Your task to perform on an android device: change keyboard looks Image 0: 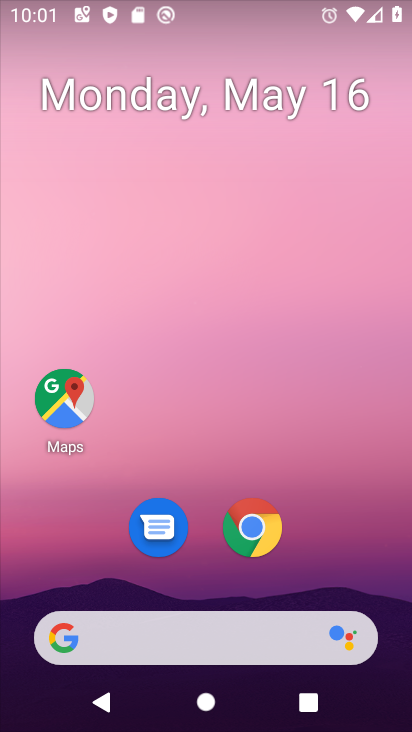
Step 0: drag from (363, 606) to (370, 4)
Your task to perform on an android device: change keyboard looks Image 1: 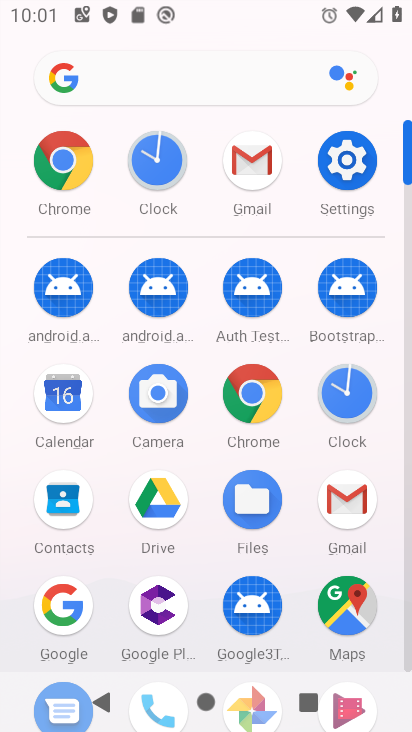
Step 1: click (348, 164)
Your task to perform on an android device: change keyboard looks Image 2: 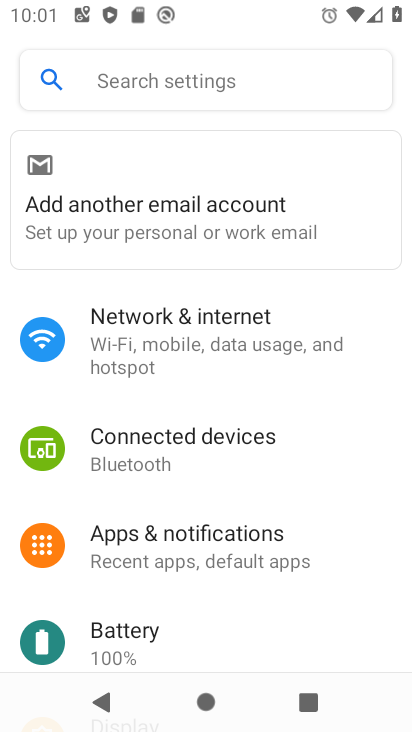
Step 2: drag from (323, 582) to (355, 37)
Your task to perform on an android device: change keyboard looks Image 3: 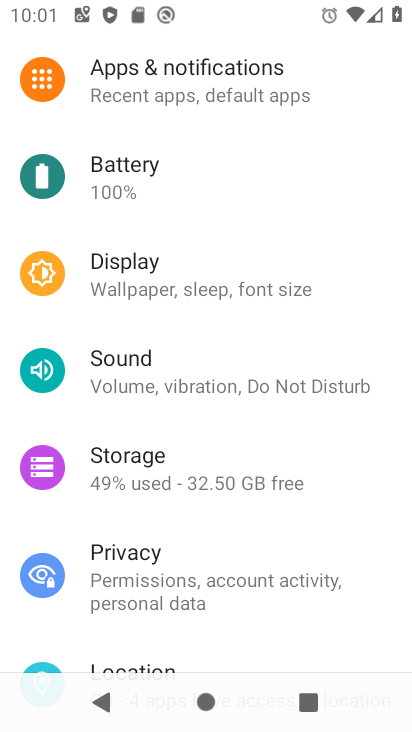
Step 3: drag from (313, 552) to (335, 94)
Your task to perform on an android device: change keyboard looks Image 4: 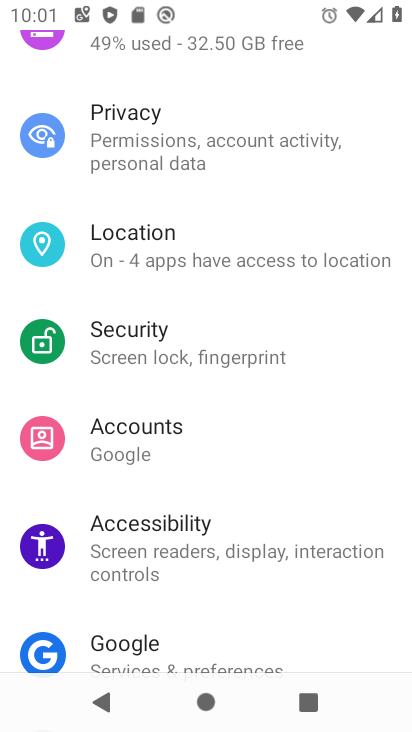
Step 4: drag from (318, 511) to (296, 141)
Your task to perform on an android device: change keyboard looks Image 5: 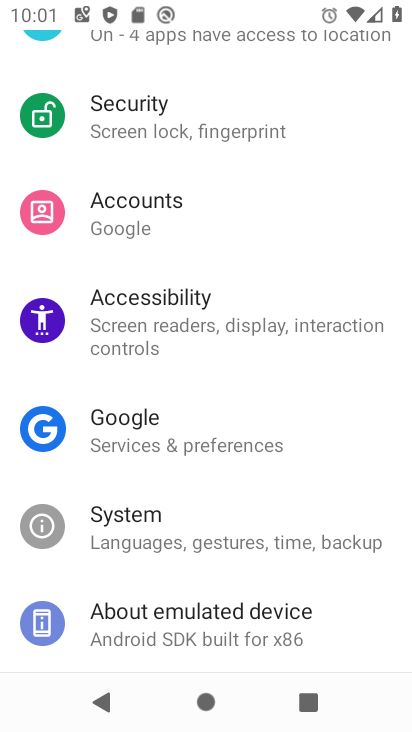
Step 5: click (102, 535)
Your task to perform on an android device: change keyboard looks Image 6: 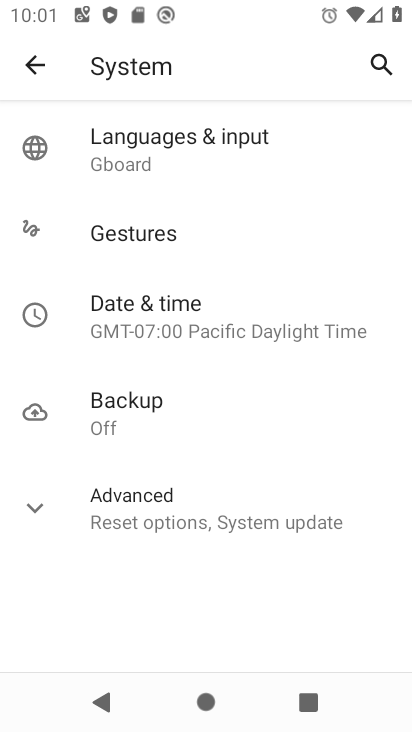
Step 6: click (104, 159)
Your task to perform on an android device: change keyboard looks Image 7: 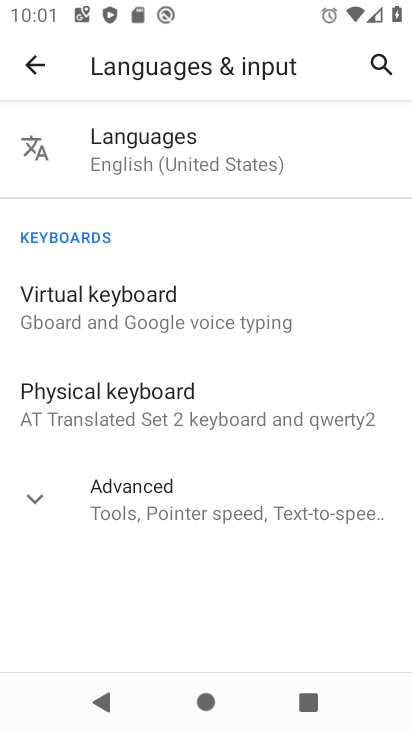
Step 7: click (77, 302)
Your task to perform on an android device: change keyboard looks Image 8: 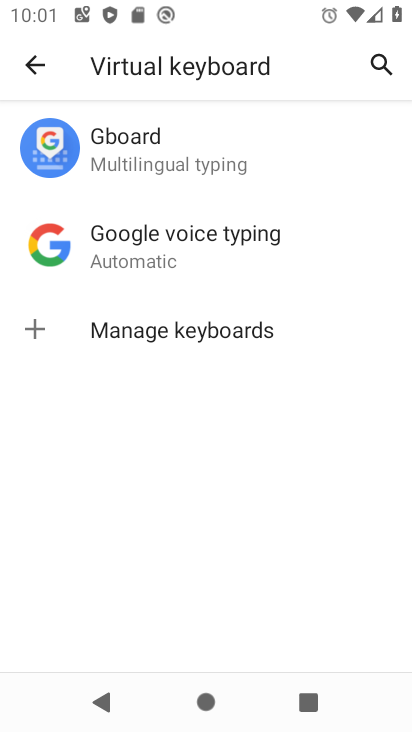
Step 8: click (102, 156)
Your task to perform on an android device: change keyboard looks Image 9: 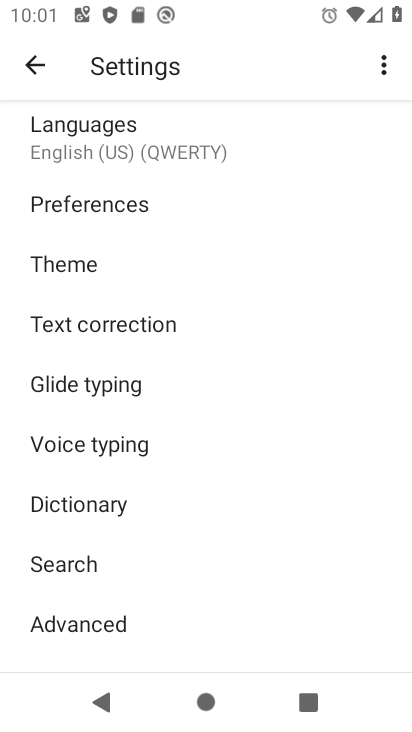
Step 9: click (86, 274)
Your task to perform on an android device: change keyboard looks Image 10: 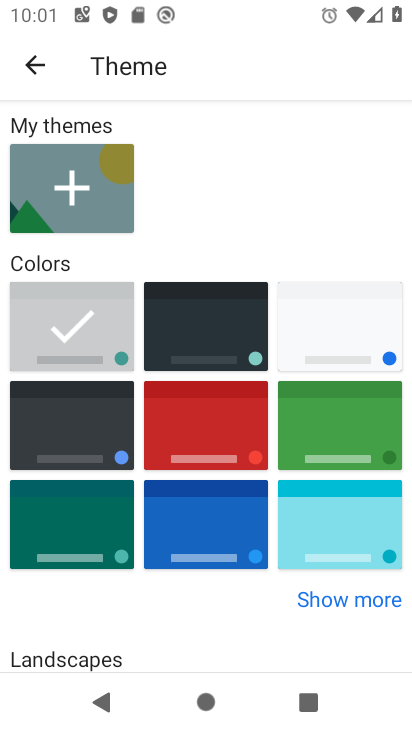
Step 10: click (210, 446)
Your task to perform on an android device: change keyboard looks Image 11: 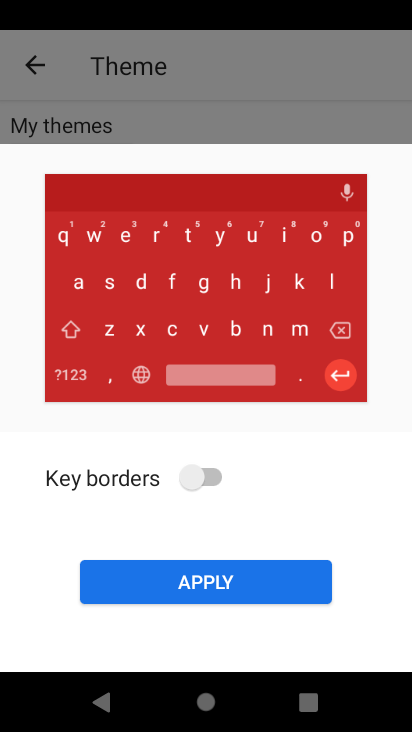
Step 11: click (197, 475)
Your task to perform on an android device: change keyboard looks Image 12: 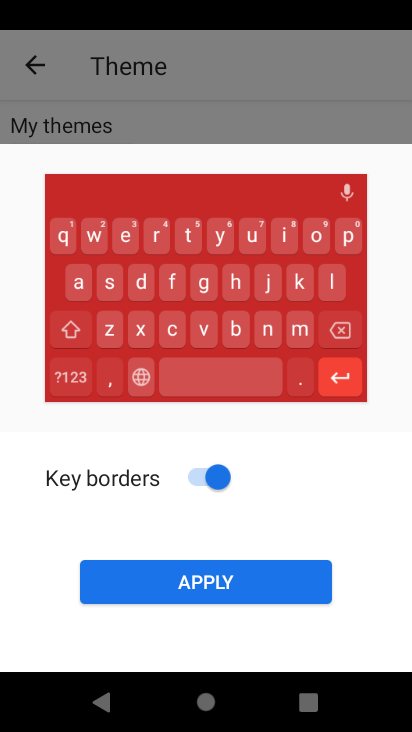
Step 12: click (185, 572)
Your task to perform on an android device: change keyboard looks Image 13: 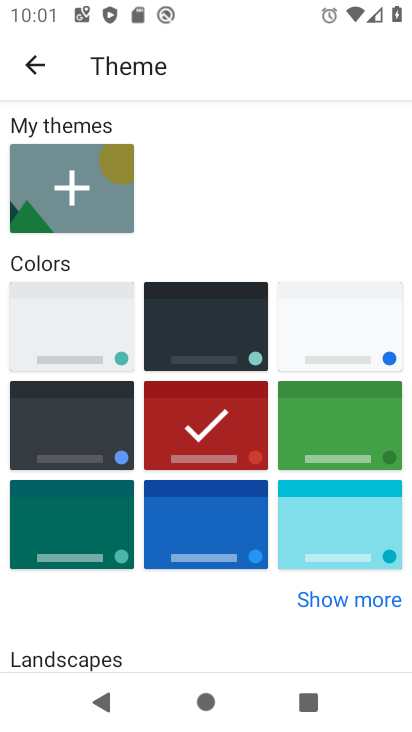
Step 13: task complete